Your task to perform on an android device: change notifications settings Image 0: 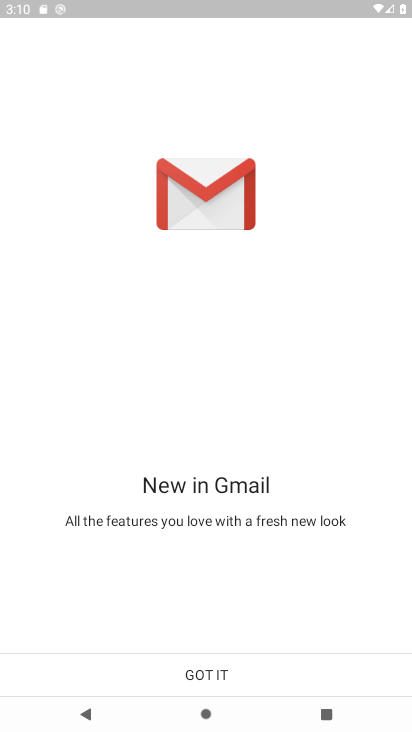
Step 0: press home button
Your task to perform on an android device: change notifications settings Image 1: 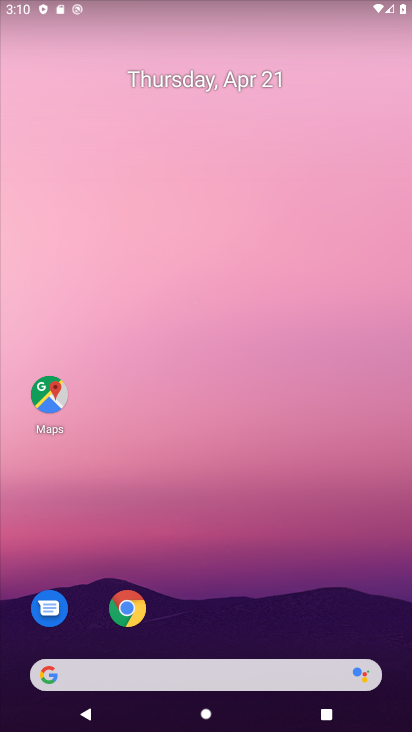
Step 1: drag from (223, 229) to (236, 1)
Your task to perform on an android device: change notifications settings Image 2: 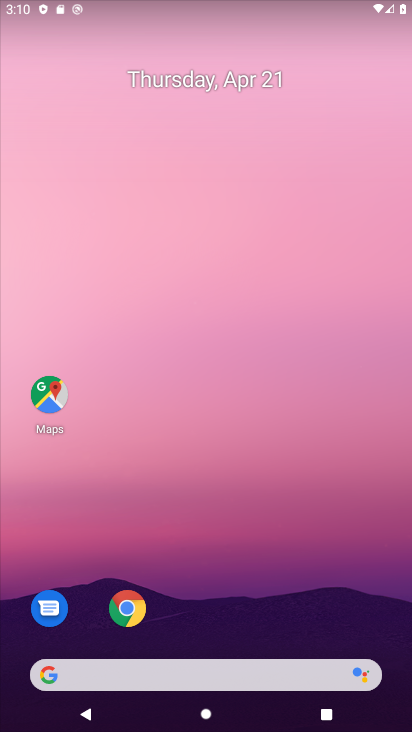
Step 2: click (304, 611)
Your task to perform on an android device: change notifications settings Image 3: 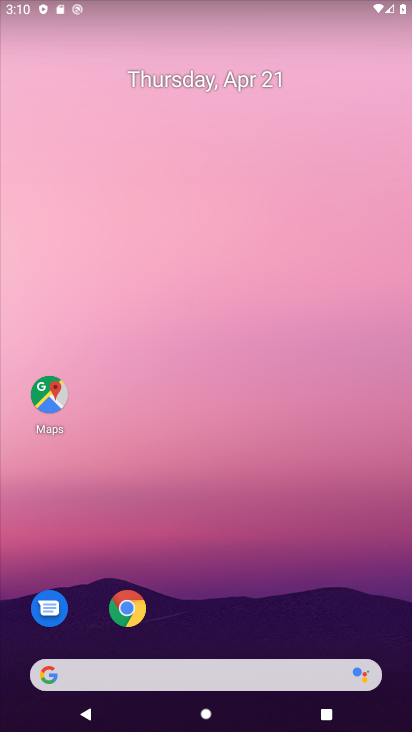
Step 3: drag from (264, 571) to (182, 96)
Your task to perform on an android device: change notifications settings Image 4: 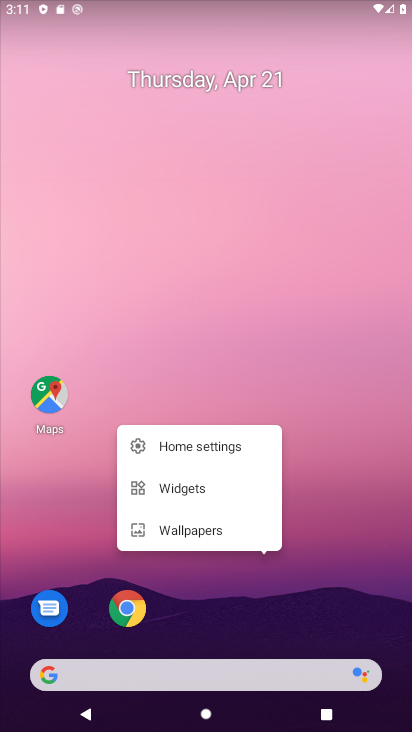
Step 4: click (299, 613)
Your task to perform on an android device: change notifications settings Image 5: 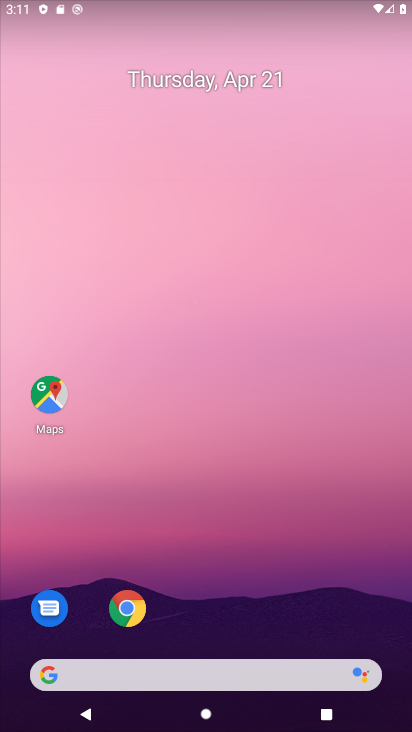
Step 5: drag from (315, 608) to (241, 72)
Your task to perform on an android device: change notifications settings Image 6: 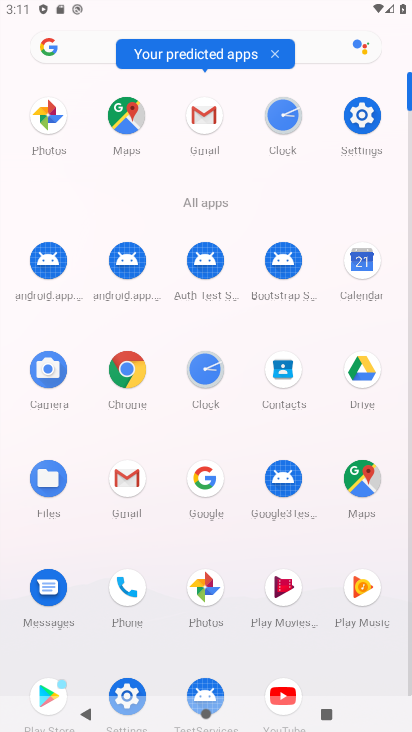
Step 6: click (361, 116)
Your task to perform on an android device: change notifications settings Image 7: 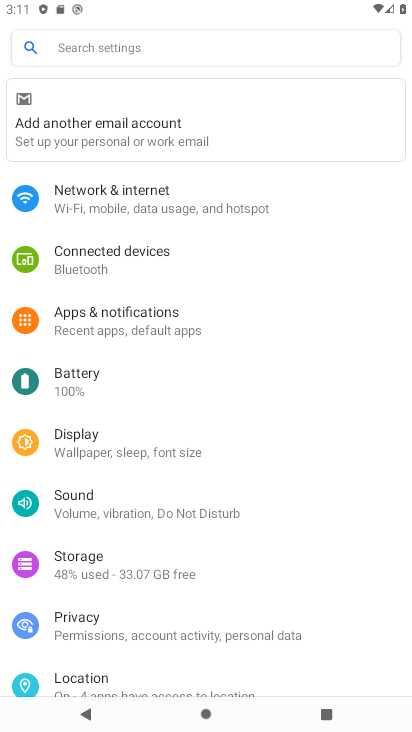
Step 7: click (52, 318)
Your task to perform on an android device: change notifications settings Image 8: 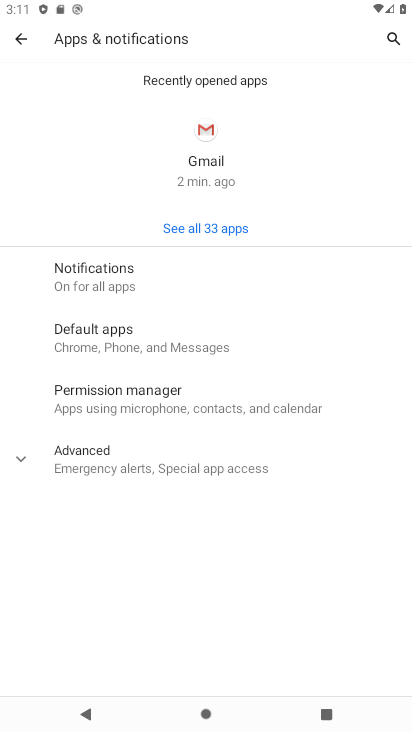
Step 8: click (143, 297)
Your task to perform on an android device: change notifications settings Image 9: 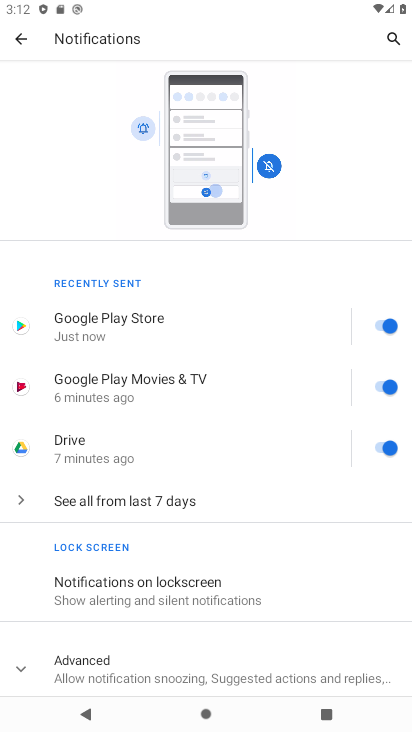
Step 9: click (250, 665)
Your task to perform on an android device: change notifications settings Image 10: 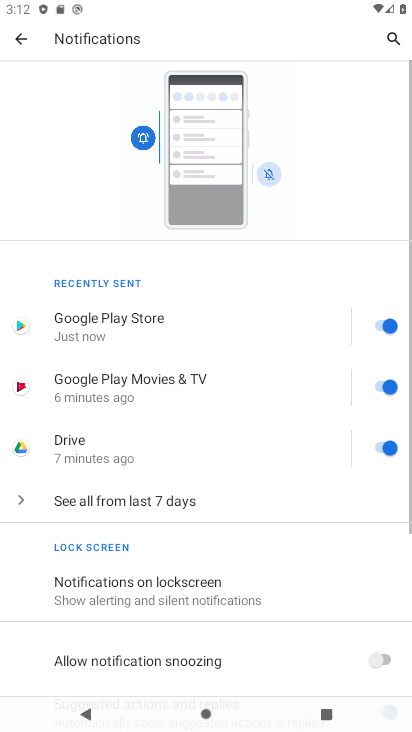
Step 10: drag from (250, 664) to (197, 224)
Your task to perform on an android device: change notifications settings Image 11: 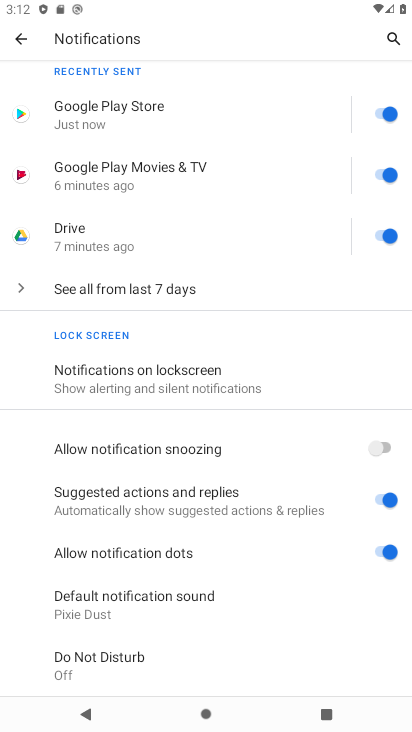
Step 11: click (386, 243)
Your task to perform on an android device: change notifications settings Image 12: 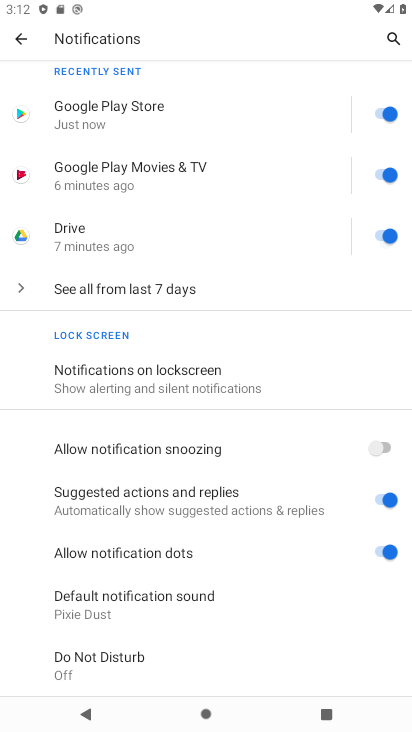
Step 12: click (384, 171)
Your task to perform on an android device: change notifications settings Image 13: 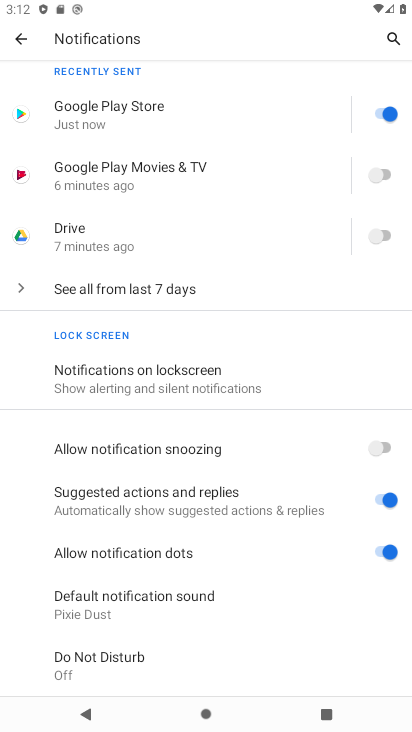
Step 13: click (378, 131)
Your task to perform on an android device: change notifications settings Image 14: 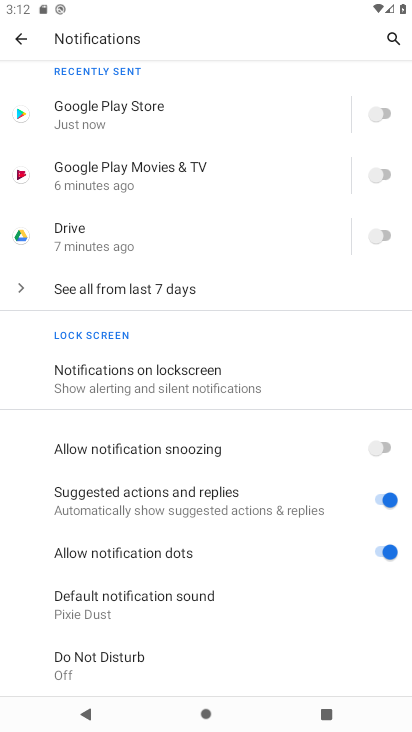
Step 14: task complete